Your task to perform on an android device: turn on notifications settings in the gmail app Image 0: 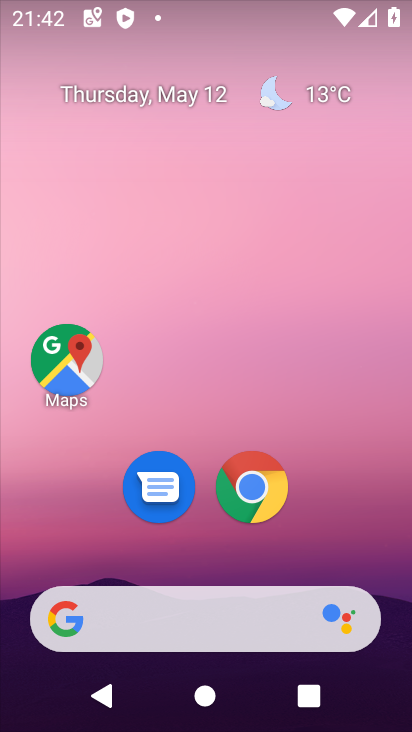
Step 0: drag from (201, 560) to (223, 120)
Your task to perform on an android device: turn on notifications settings in the gmail app Image 1: 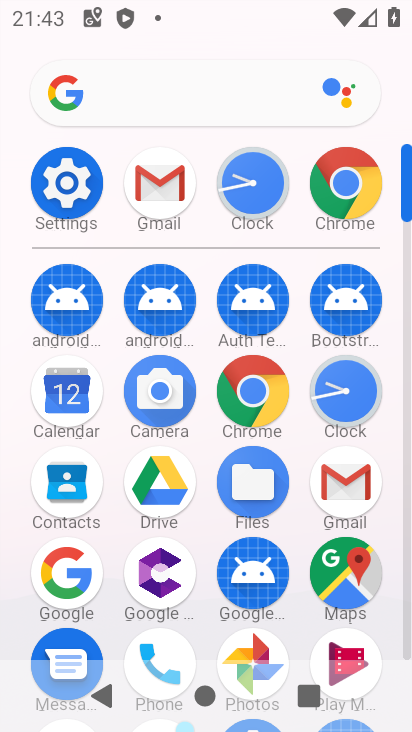
Step 1: click (147, 169)
Your task to perform on an android device: turn on notifications settings in the gmail app Image 2: 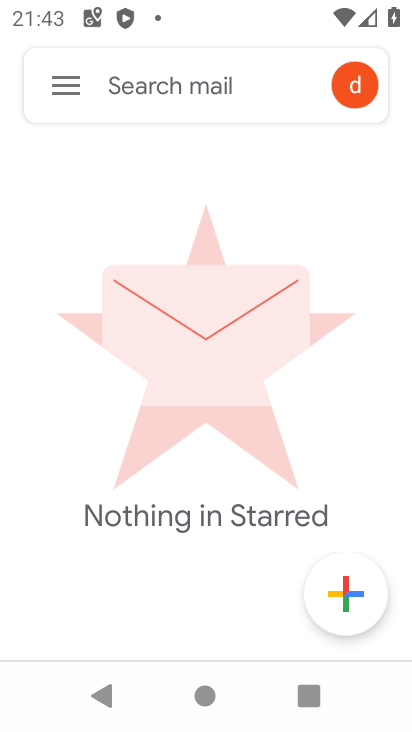
Step 2: click (66, 98)
Your task to perform on an android device: turn on notifications settings in the gmail app Image 3: 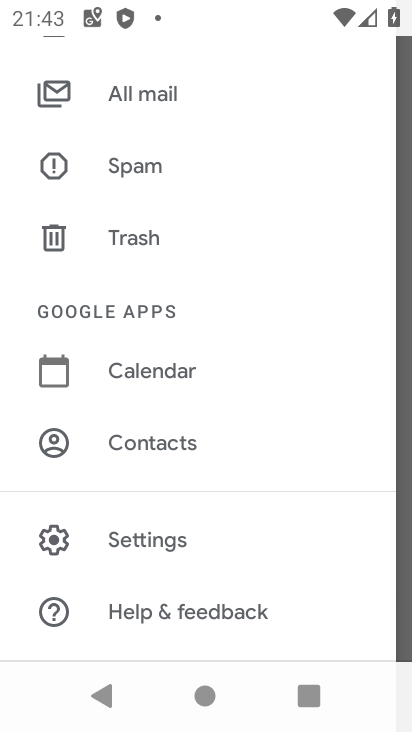
Step 3: click (154, 565)
Your task to perform on an android device: turn on notifications settings in the gmail app Image 4: 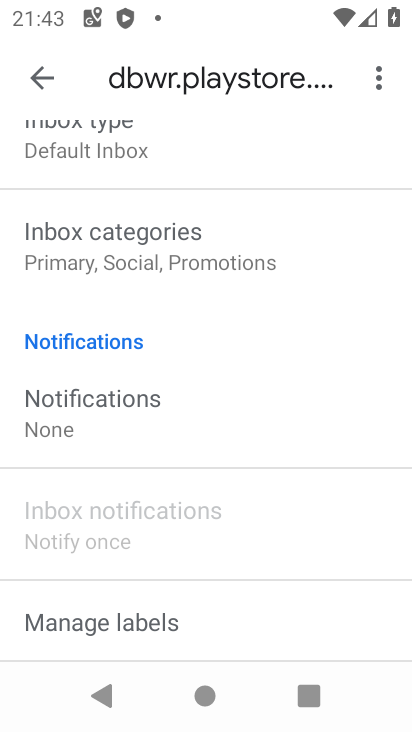
Step 4: click (149, 430)
Your task to perform on an android device: turn on notifications settings in the gmail app Image 5: 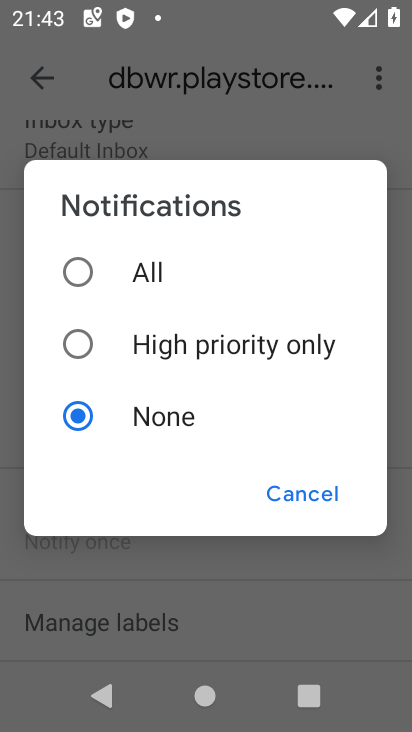
Step 5: click (153, 245)
Your task to perform on an android device: turn on notifications settings in the gmail app Image 6: 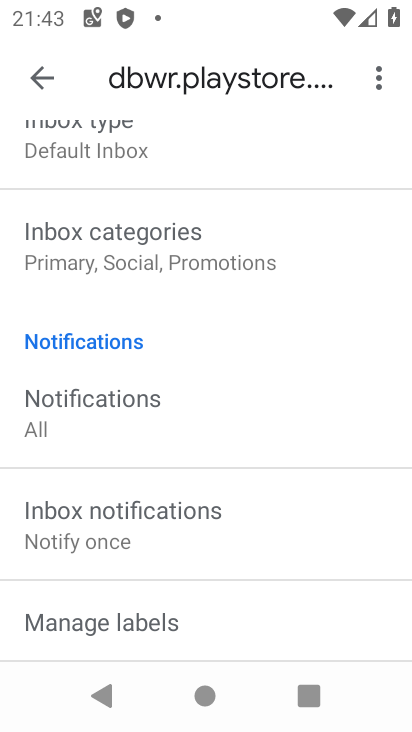
Step 6: task complete